Your task to perform on an android device: turn off sleep mode Image 0: 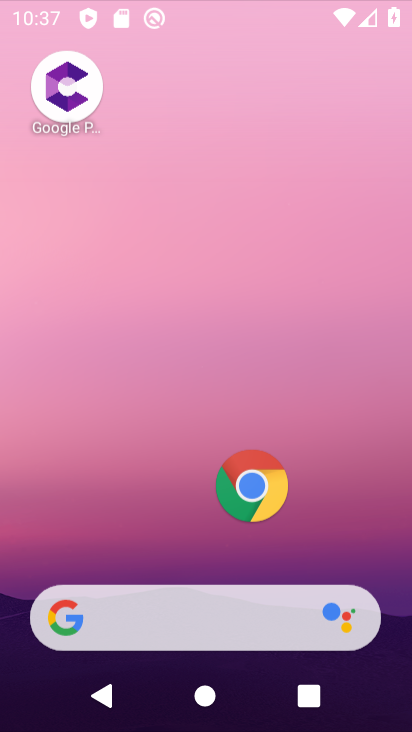
Step 0: click (202, 355)
Your task to perform on an android device: turn off sleep mode Image 1: 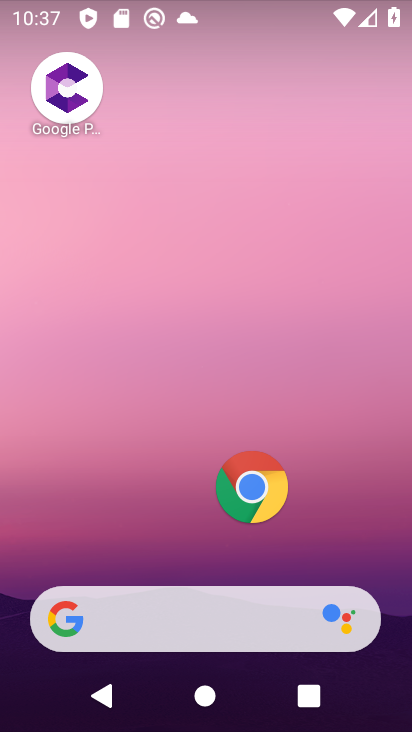
Step 1: drag from (148, 519) to (224, 0)
Your task to perform on an android device: turn off sleep mode Image 2: 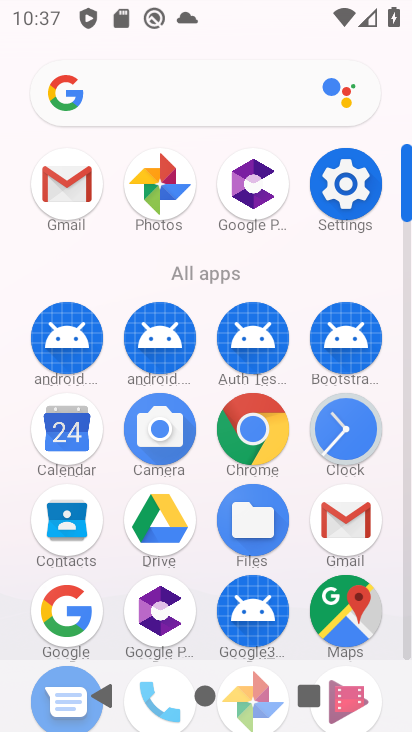
Step 2: click (353, 189)
Your task to perform on an android device: turn off sleep mode Image 3: 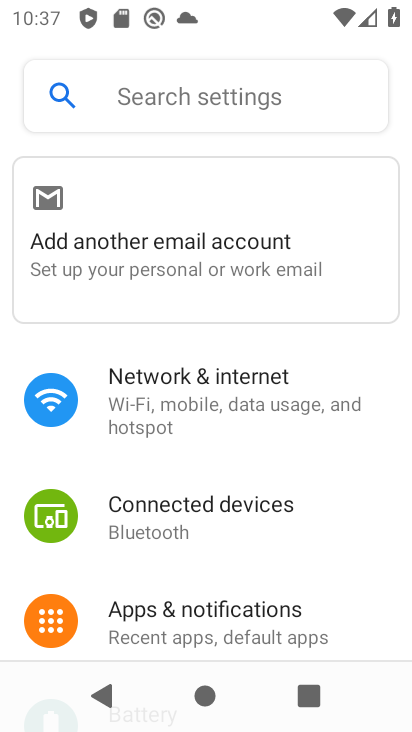
Step 3: click (233, 91)
Your task to perform on an android device: turn off sleep mode Image 4: 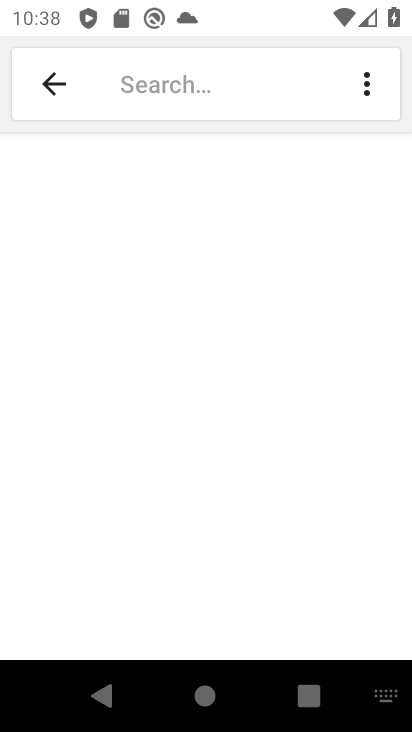
Step 4: type "sleep mode"
Your task to perform on an android device: turn off sleep mode Image 5: 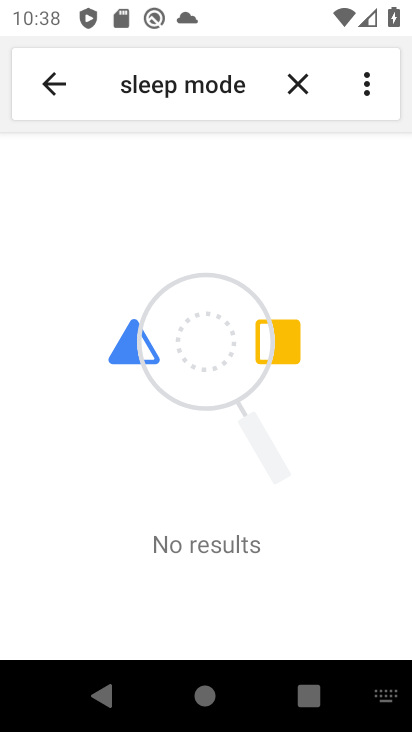
Step 5: task complete